Your task to perform on an android device: see sites visited before in the chrome app Image 0: 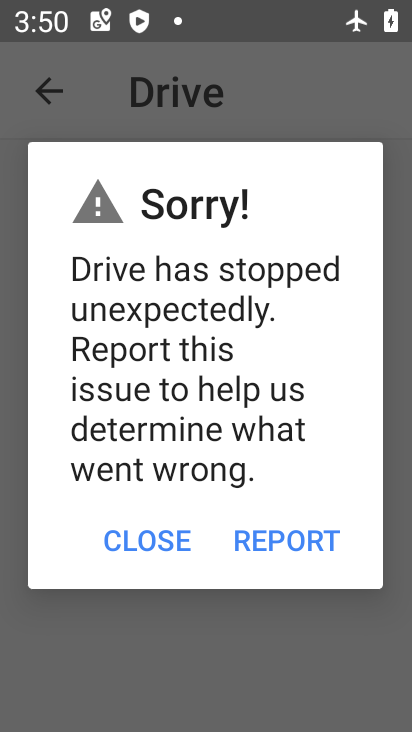
Step 0: press home button
Your task to perform on an android device: see sites visited before in the chrome app Image 1: 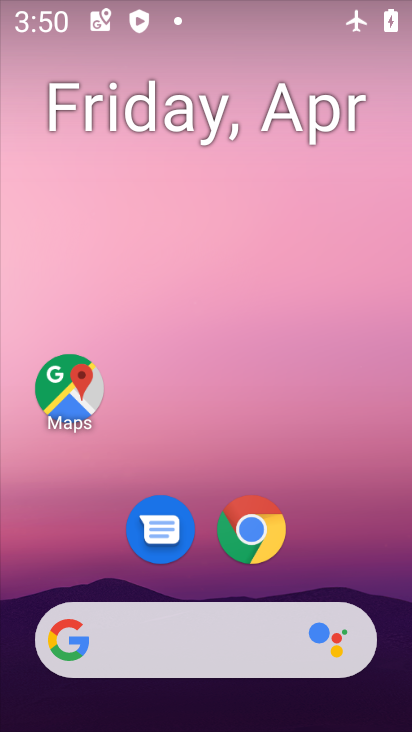
Step 1: click (258, 536)
Your task to perform on an android device: see sites visited before in the chrome app Image 2: 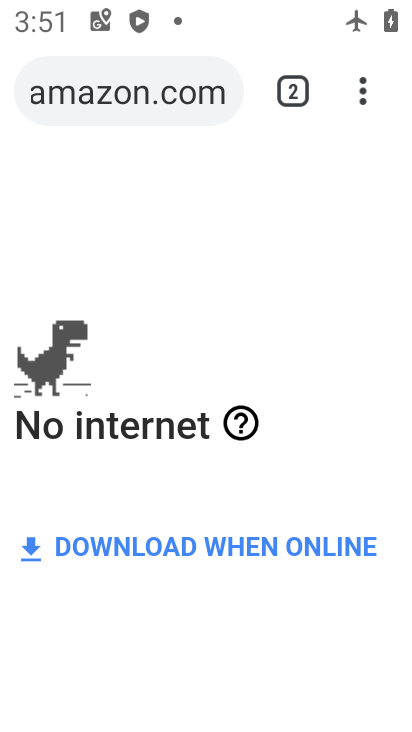
Step 2: click (364, 91)
Your task to perform on an android device: see sites visited before in the chrome app Image 3: 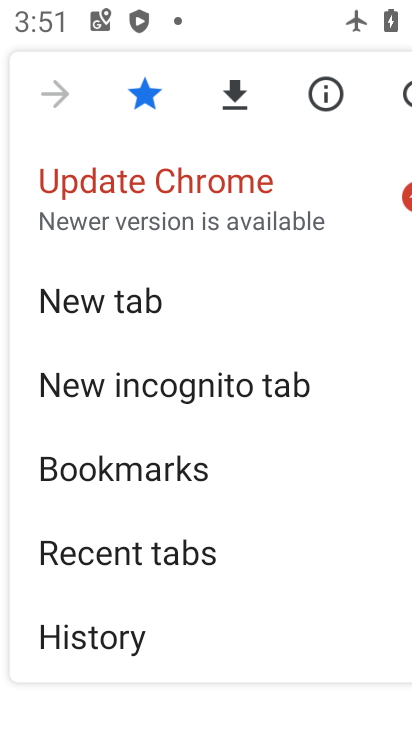
Step 3: click (122, 633)
Your task to perform on an android device: see sites visited before in the chrome app Image 4: 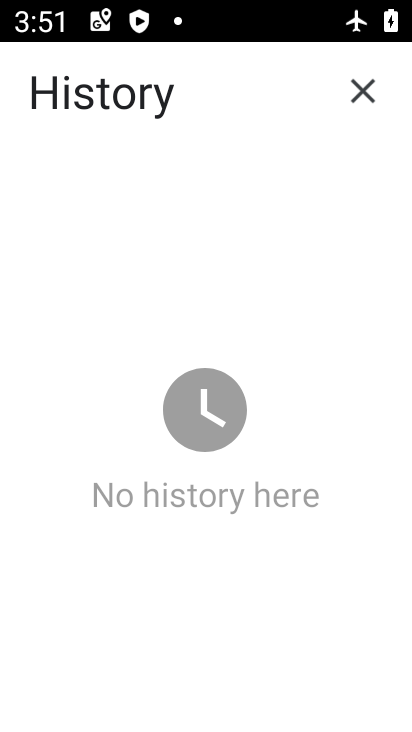
Step 4: task complete